Your task to perform on an android device: turn off translation in the chrome app Image 0: 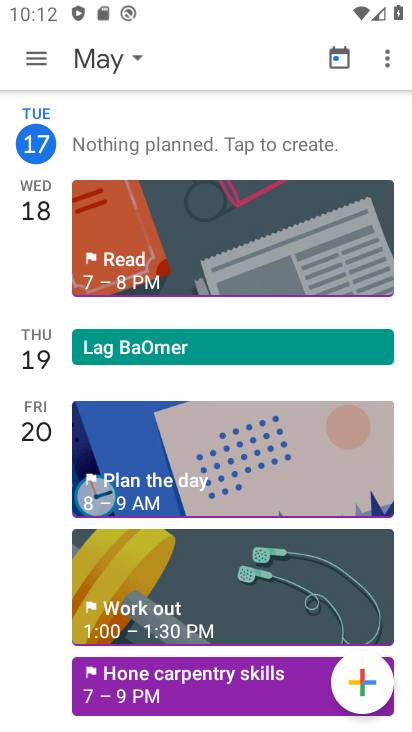
Step 0: press back button
Your task to perform on an android device: turn off translation in the chrome app Image 1: 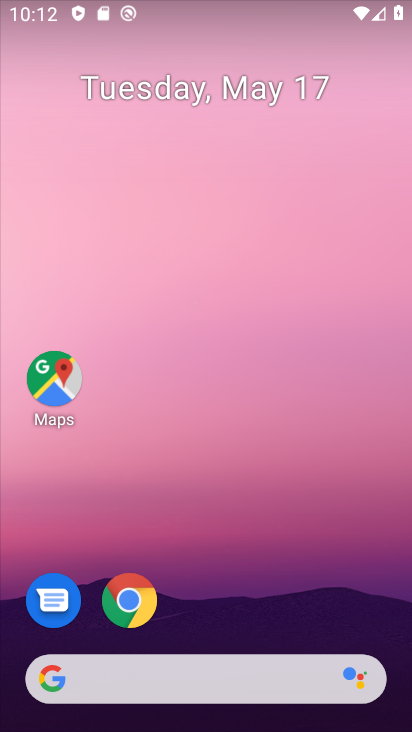
Step 1: click (118, 603)
Your task to perform on an android device: turn off translation in the chrome app Image 2: 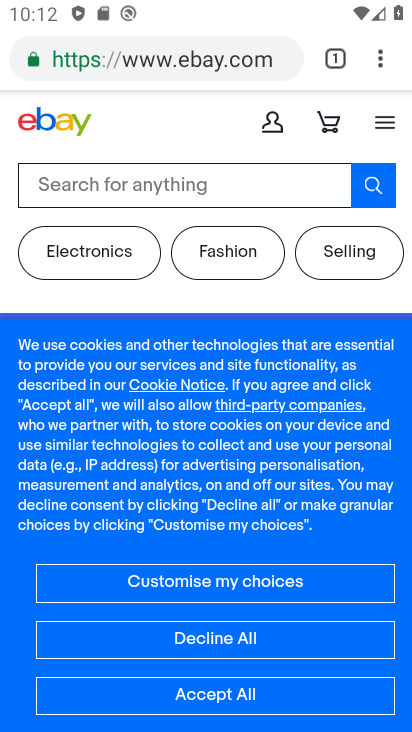
Step 2: drag from (376, 54) to (187, 625)
Your task to perform on an android device: turn off translation in the chrome app Image 3: 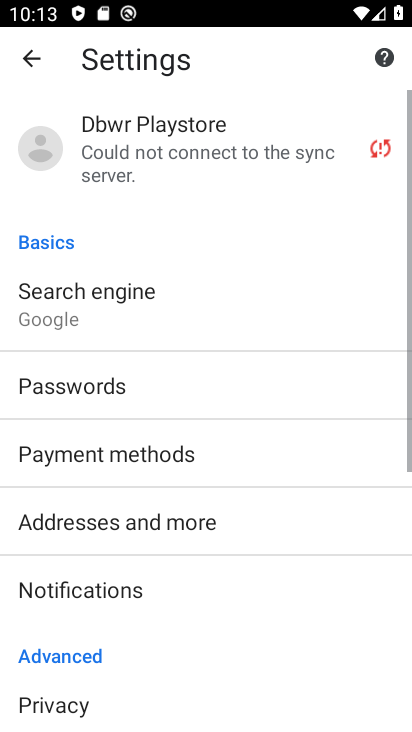
Step 3: drag from (180, 624) to (275, 61)
Your task to perform on an android device: turn off translation in the chrome app Image 4: 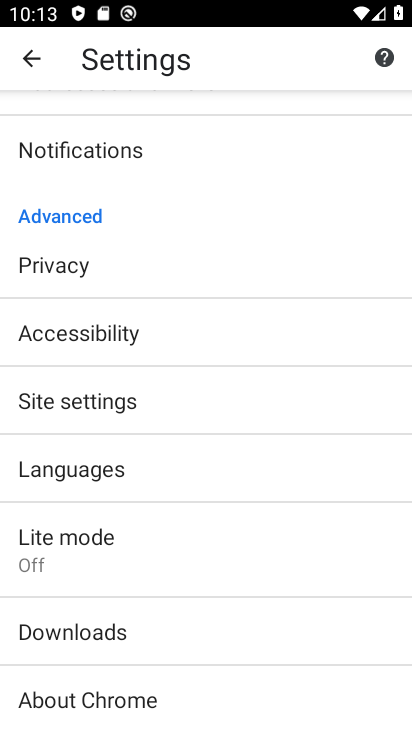
Step 4: click (57, 481)
Your task to perform on an android device: turn off translation in the chrome app Image 5: 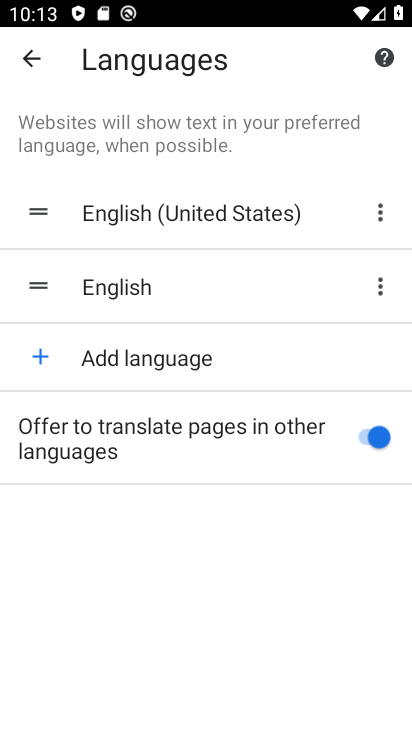
Step 5: click (360, 447)
Your task to perform on an android device: turn off translation in the chrome app Image 6: 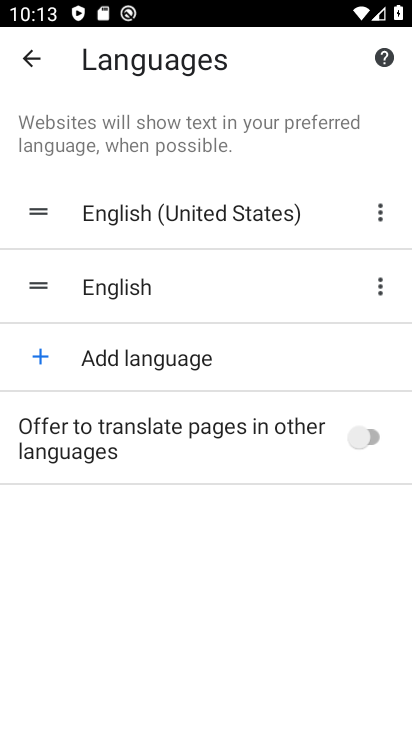
Step 6: task complete